Your task to perform on an android device: Open battery settings Image 0: 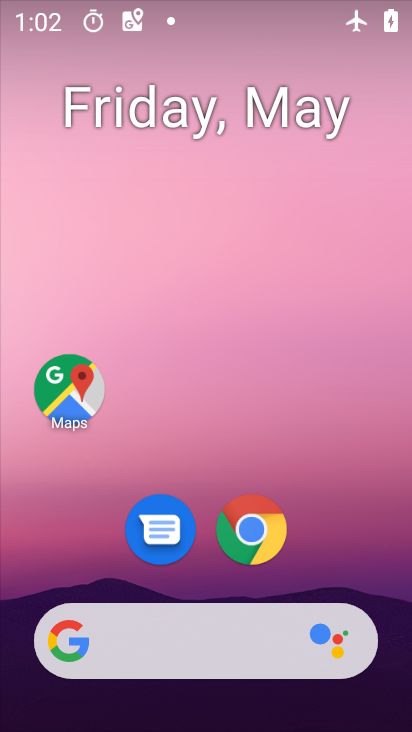
Step 0: drag from (213, 564) to (271, 0)
Your task to perform on an android device: Open battery settings Image 1: 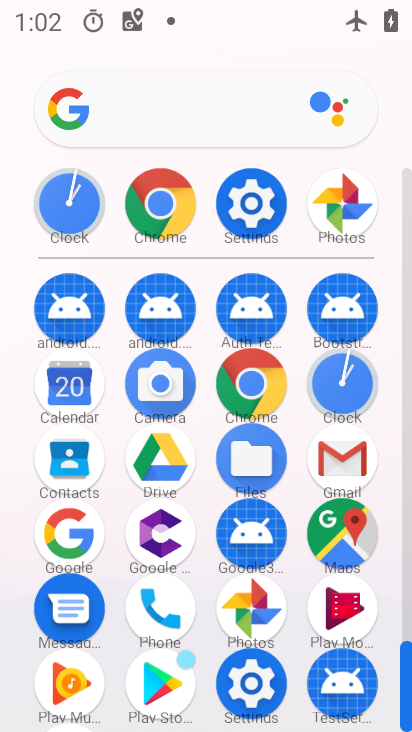
Step 1: click (257, 220)
Your task to perform on an android device: Open battery settings Image 2: 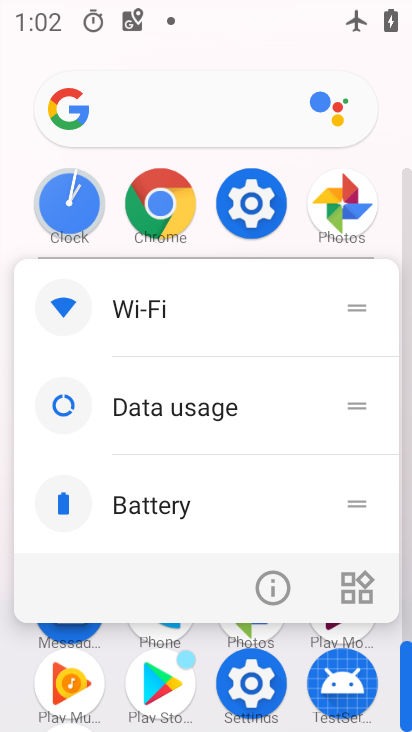
Step 2: click (241, 195)
Your task to perform on an android device: Open battery settings Image 3: 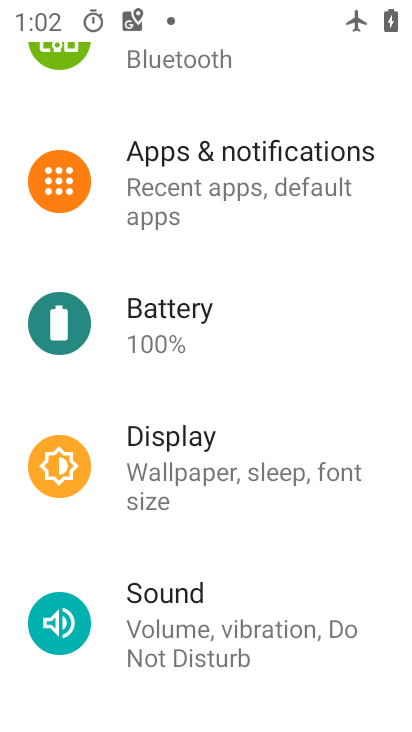
Step 3: click (251, 324)
Your task to perform on an android device: Open battery settings Image 4: 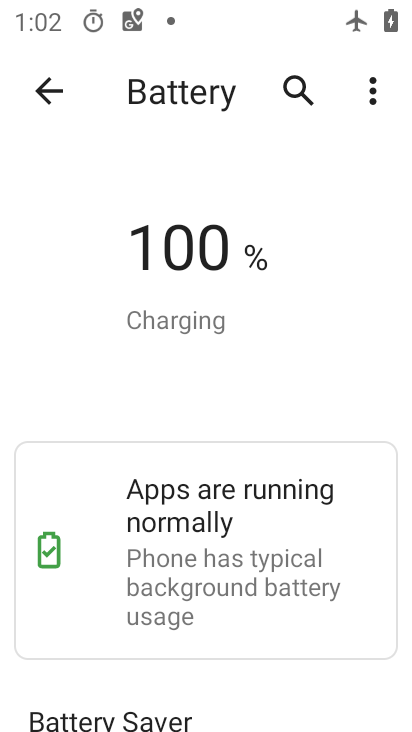
Step 4: task complete